Your task to perform on an android device: set the timer Image 0: 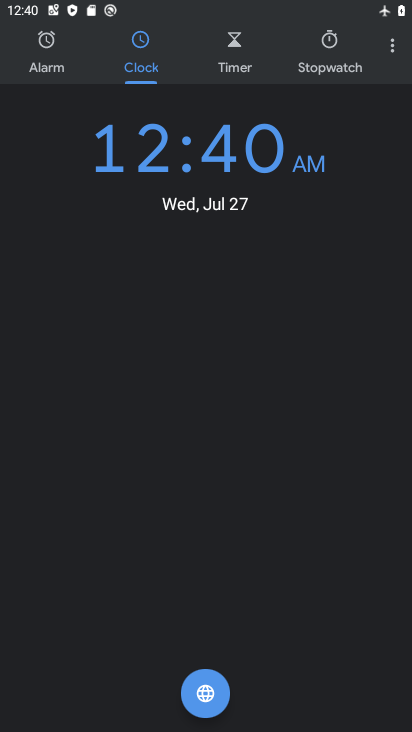
Step 0: click (237, 55)
Your task to perform on an android device: set the timer Image 1: 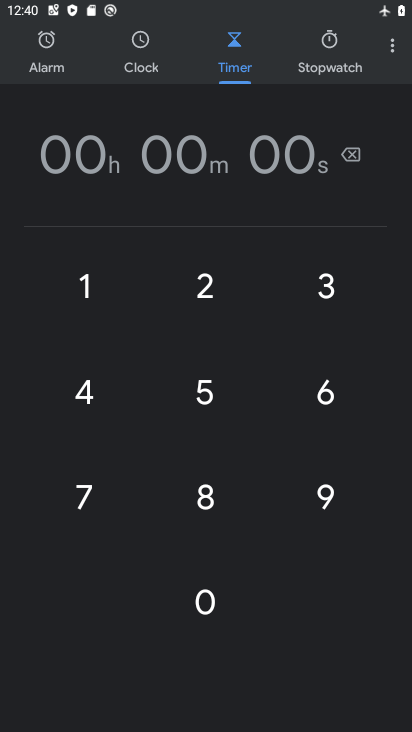
Step 1: click (91, 298)
Your task to perform on an android device: set the timer Image 2: 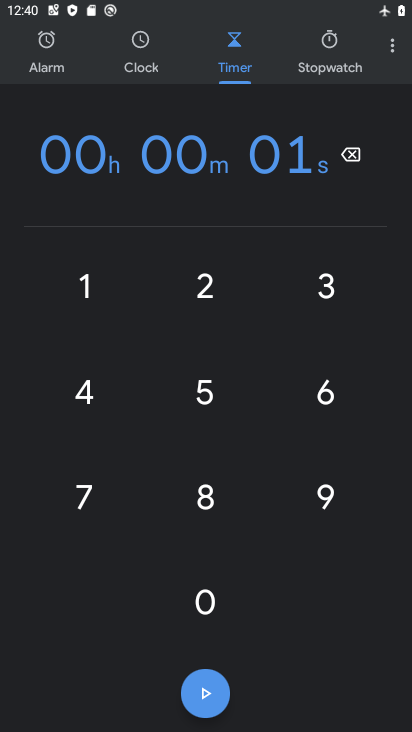
Step 2: click (205, 613)
Your task to perform on an android device: set the timer Image 3: 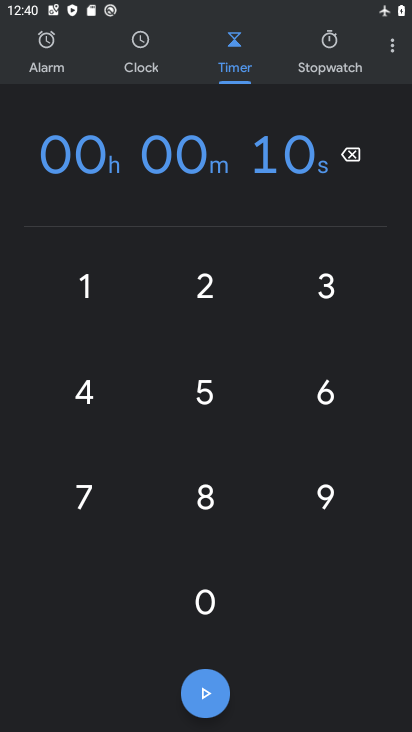
Step 3: click (203, 607)
Your task to perform on an android device: set the timer Image 4: 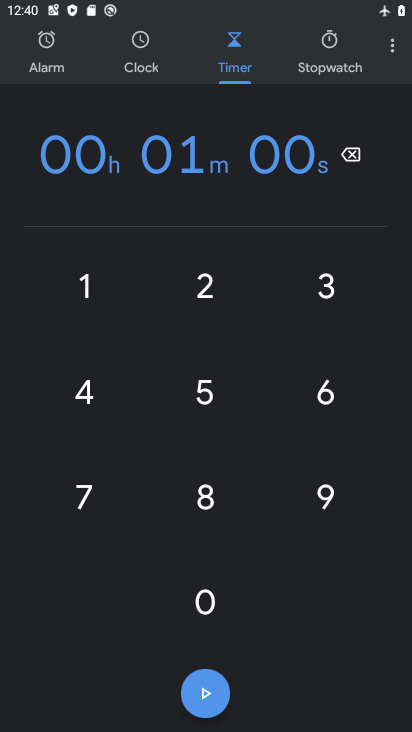
Step 4: click (203, 607)
Your task to perform on an android device: set the timer Image 5: 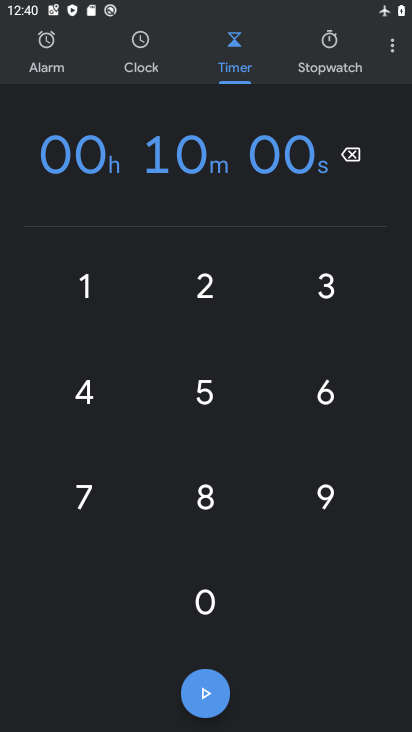
Step 5: click (200, 692)
Your task to perform on an android device: set the timer Image 6: 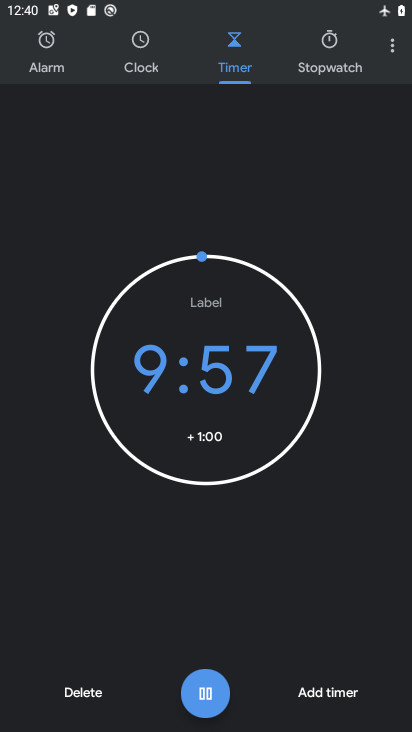
Step 6: task complete